Your task to perform on an android device: change text size in settings app Image 0: 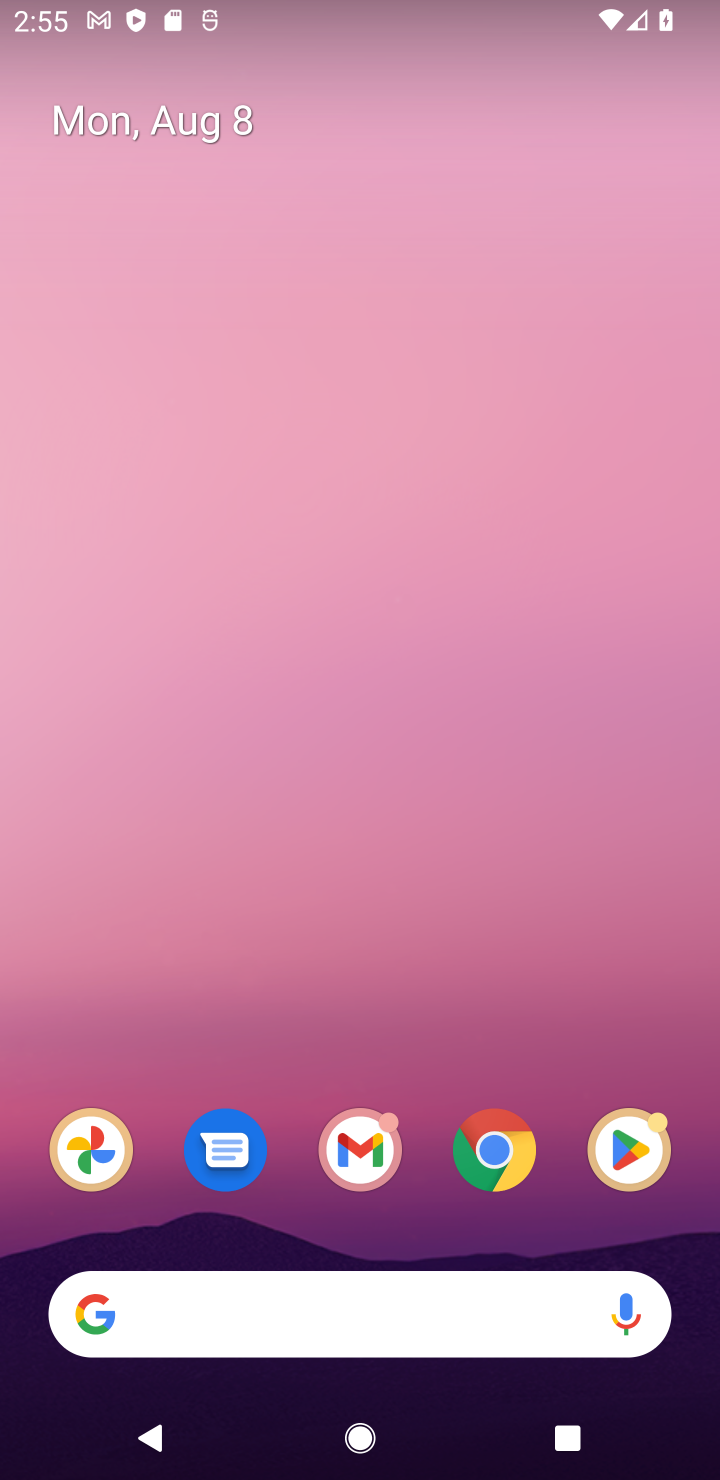
Step 0: drag from (417, 1213) to (257, 108)
Your task to perform on an android device: change text size in settings app Image 1: 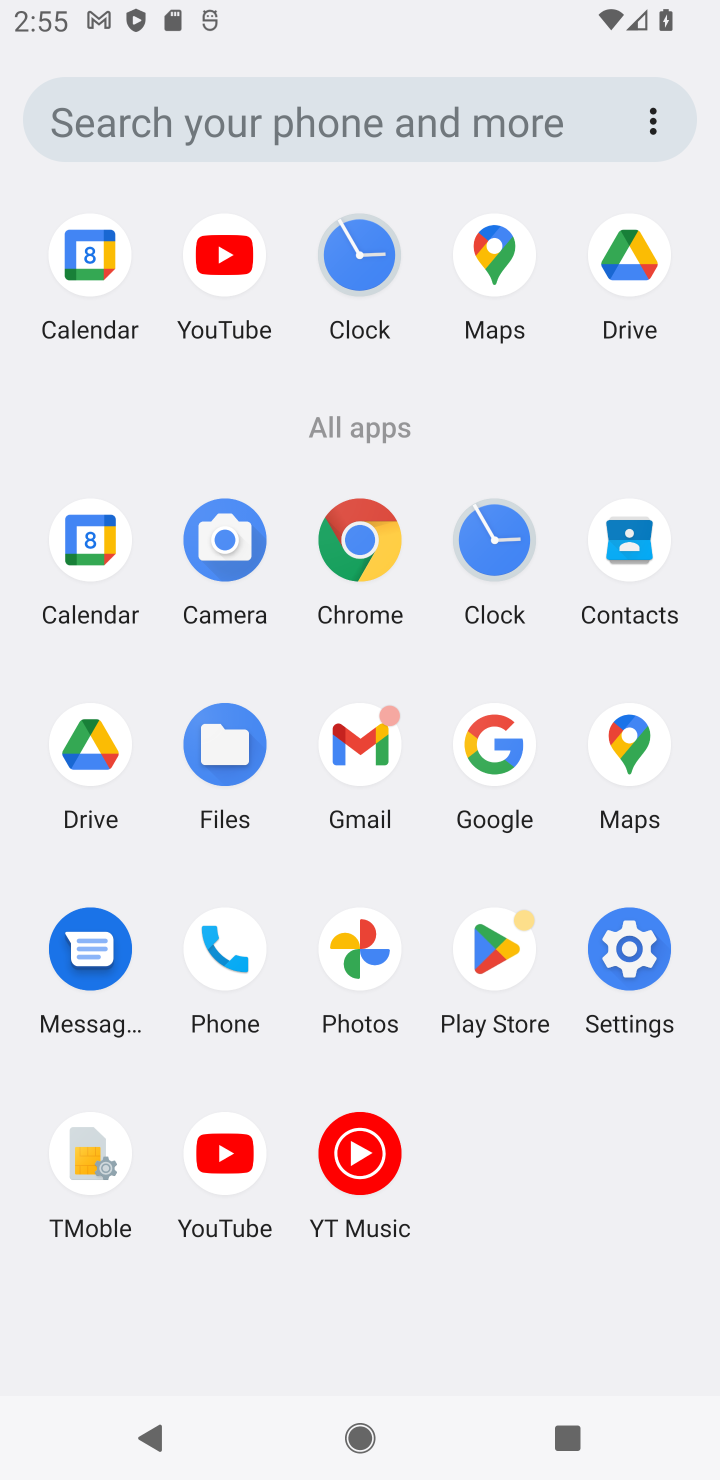
Step 1: click (637, 1010)
Your task to perform on an android device: change text size in settings app Image 2: 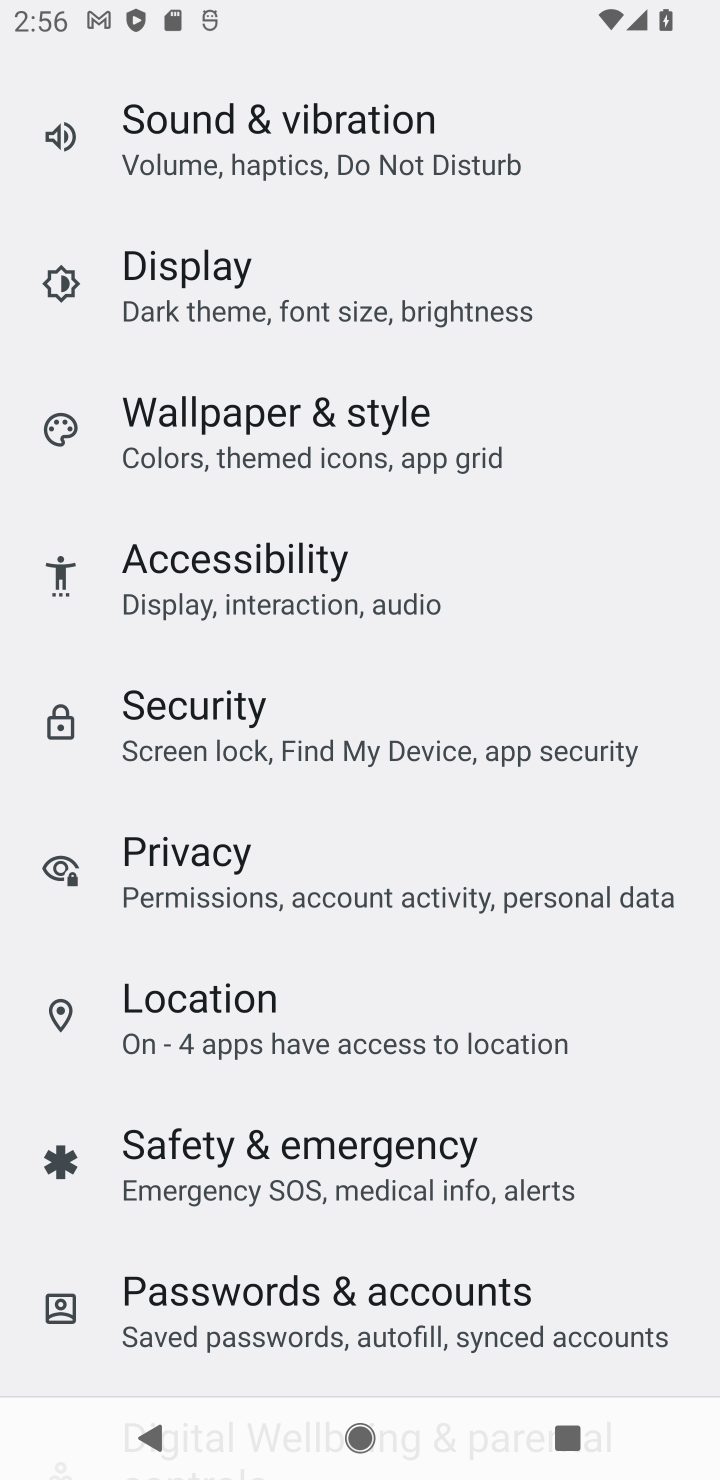
Step 2: task complete